Your task to perform on an android device: check battery use Image 0: 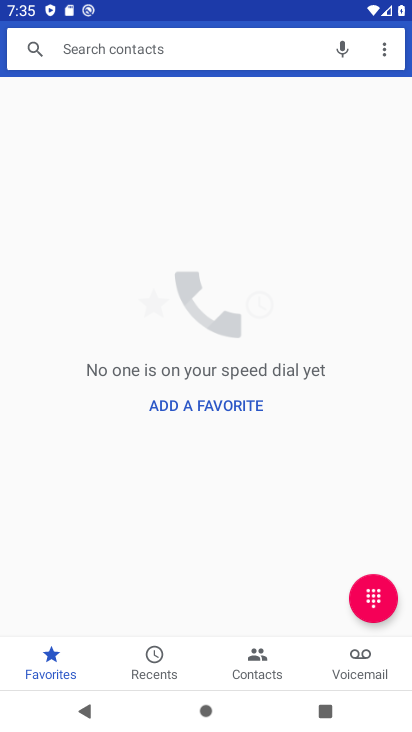
Step 0: press home button
Your task to perform on an android device: check battery use Image 1: 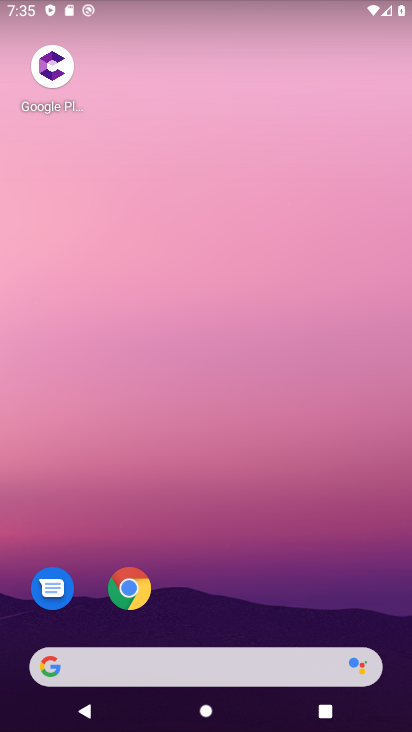
Step 1: drag from (185, 605) to (218, 140)
Your task to perform on an android device: check battery use Image 2: 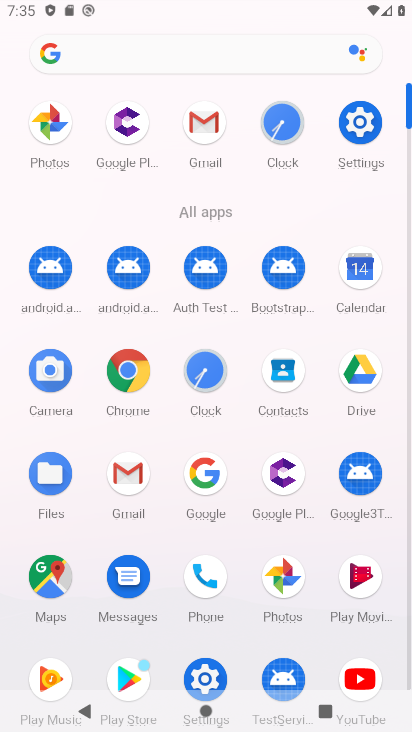
Step 2: click (363, 122)
Your task to perform on an android device: check battery use Image 3: 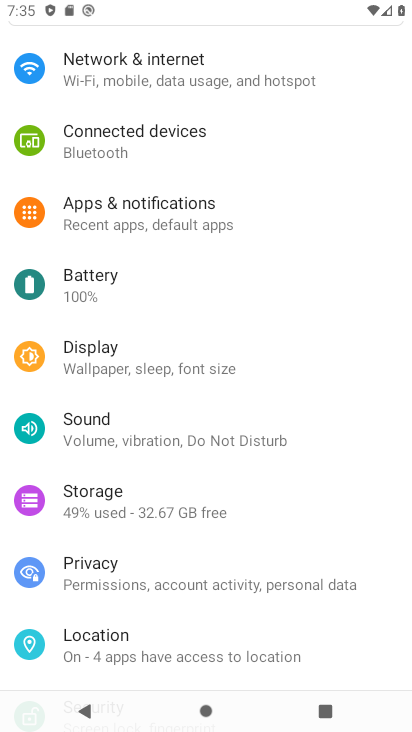
Step 3: click (131, 283)
Your task to perform on an android device: check battery use Image 4: 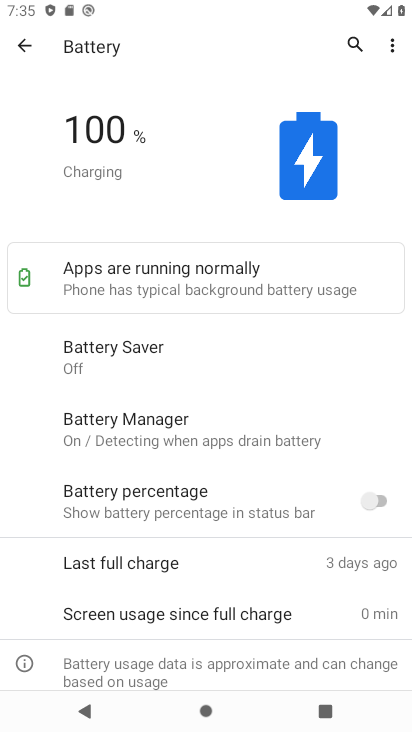
Step 4: click (205, 549)
Your task to perform on an android device: check battery use Image 5: 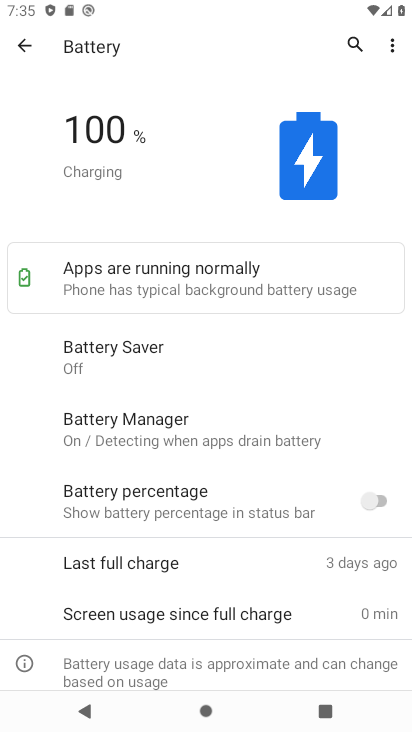
Step 5: task complete